Your task to perform on an android device: Add "jbl flip 4" to the cart on newegg Image 0: 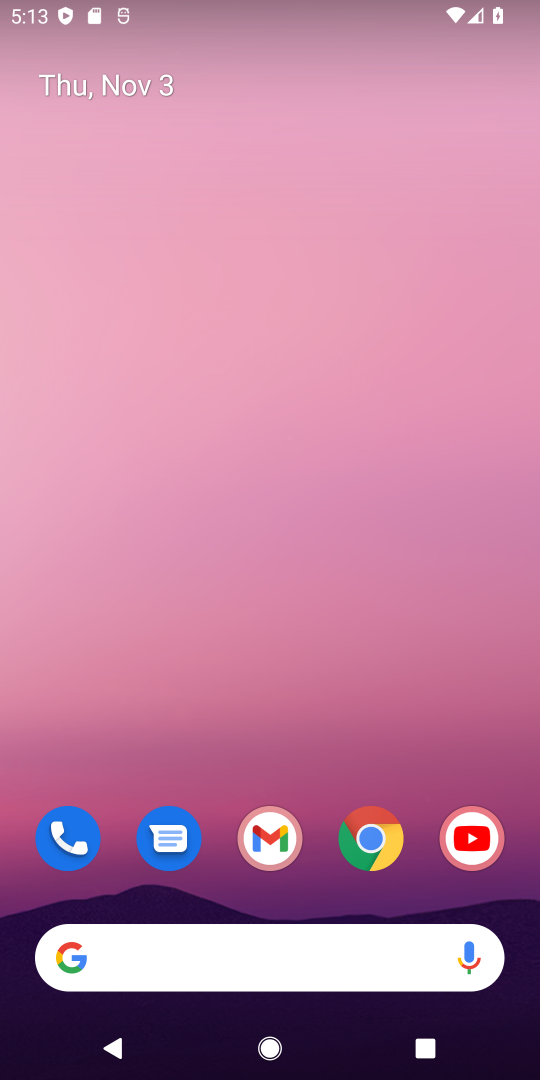
Step 0: click (359, 846)
Your task to perform on an android device: Add "jbl flip 4" to the cart on newegg Image 1: 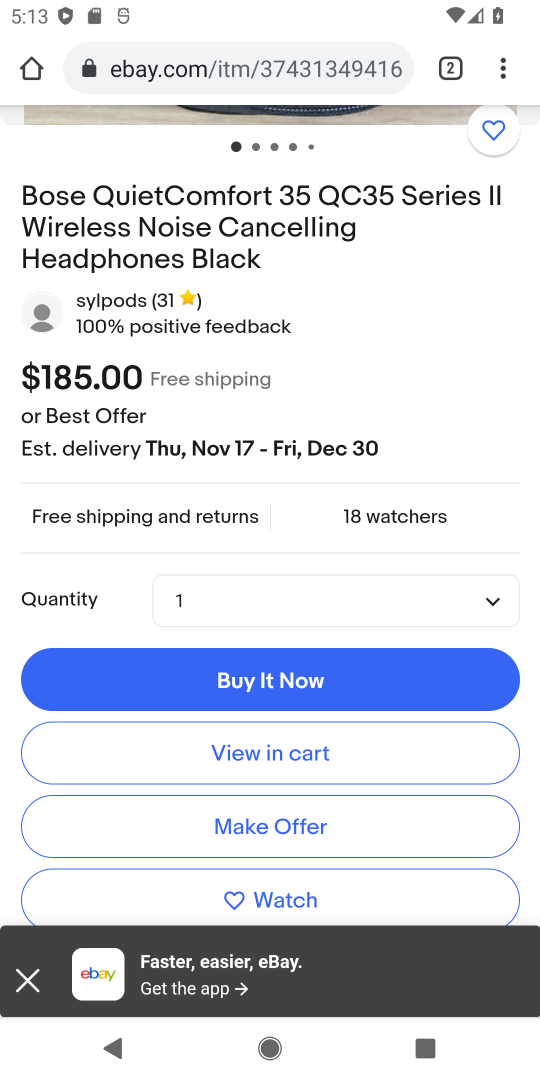
Step 1: type "newegg"
Your task to perform on an android device: Add "jbl flip 4" to the cart on newegg Image 2: 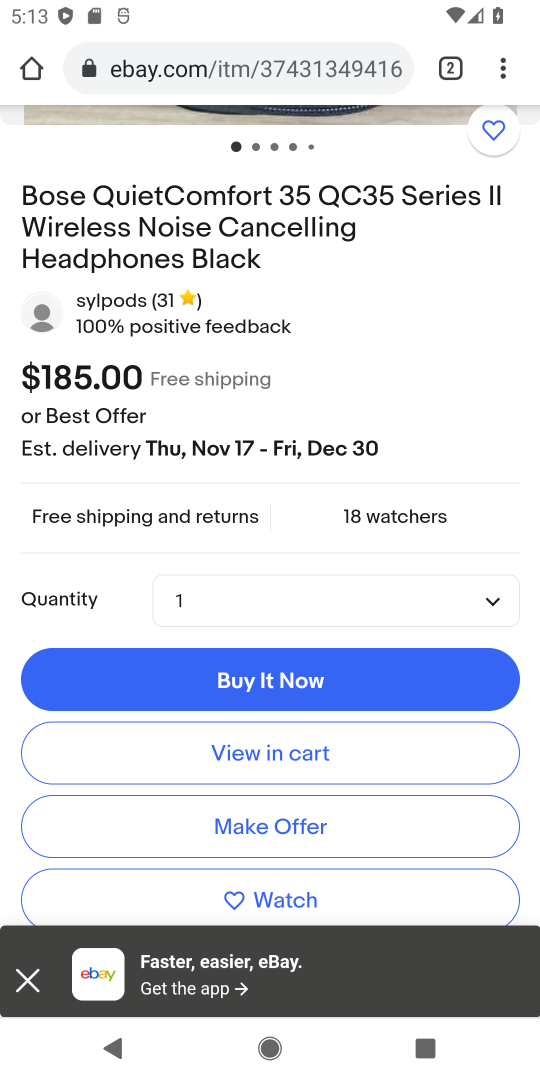
Step 2: click (451, 68)
Your task to perform on an android device: Add "jbl flip 4" to the cart on newegg Image 3: 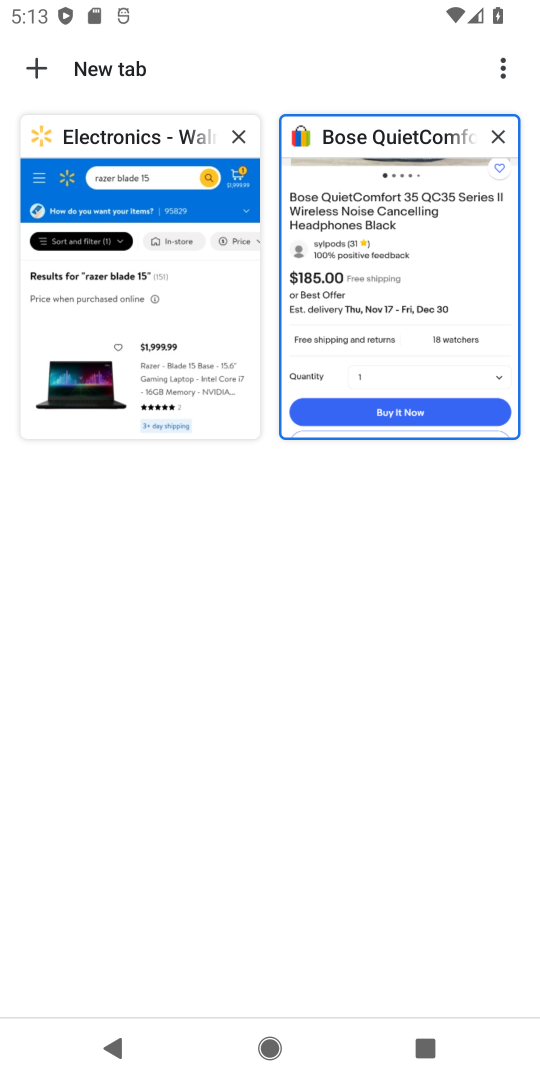
Step 3: click (36, 73)
Your task to perform on an android device: Add "jbl flip 4" to the cart on newegg Image 4: 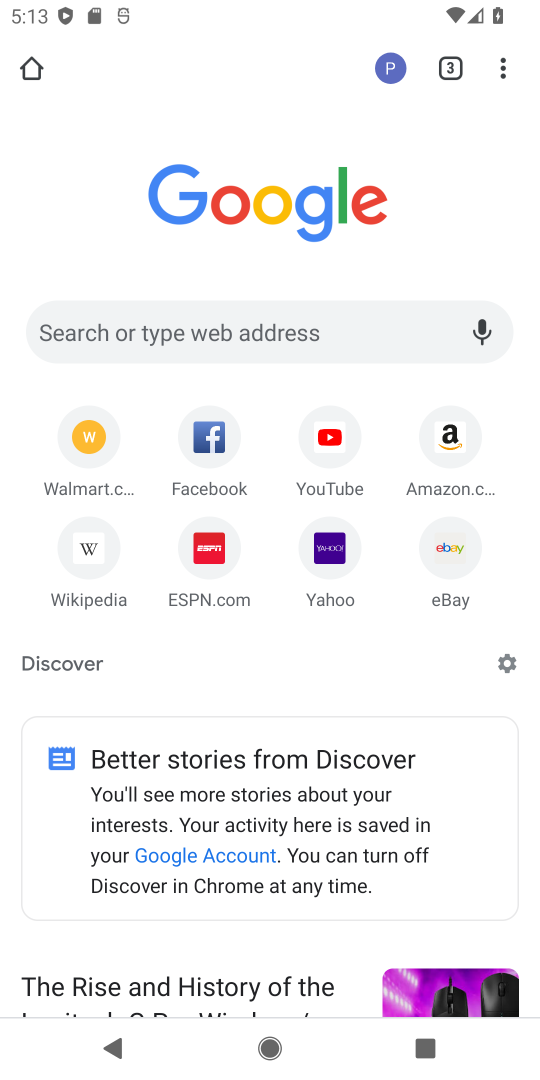
Step 4: click (336, 333)
Your task to perform on an android device: Add "jbl flip 4" to the cart on newegg Image 5: 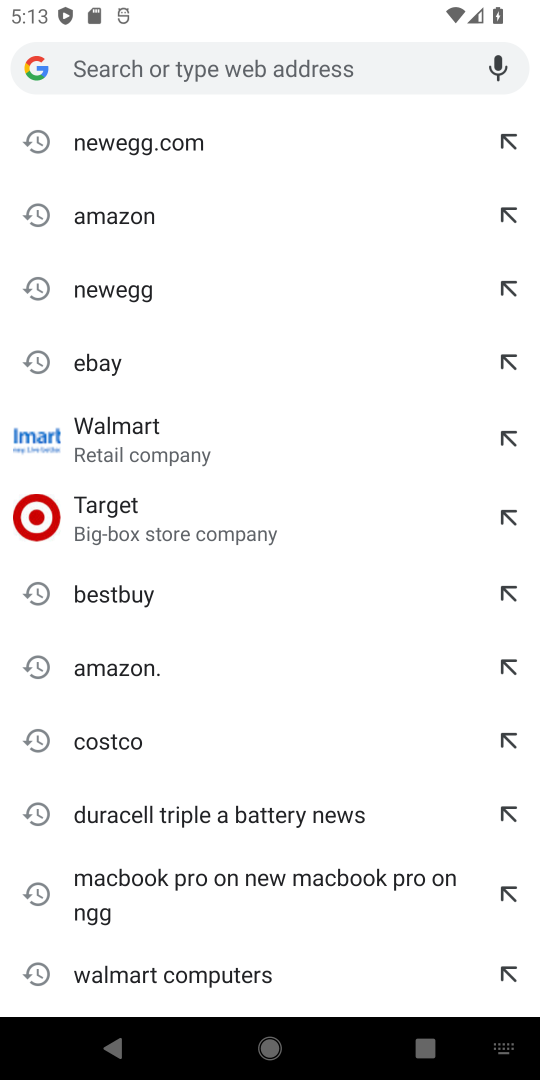
Step 5: click (143, 297)
Your task to perform on an android device: Add "jbl flip 4" to the cart on newegg Image 6: 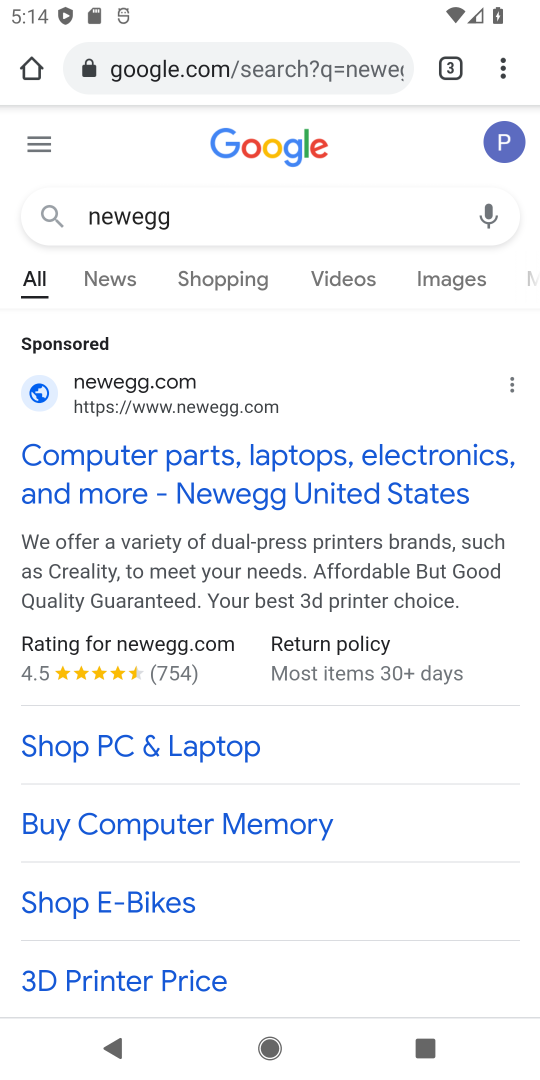
Step 6: drag from (352, 922) to (367, 343)
Your task to perform on an android device: Add "jbl flip 4" to the cart on newegg Image 7: 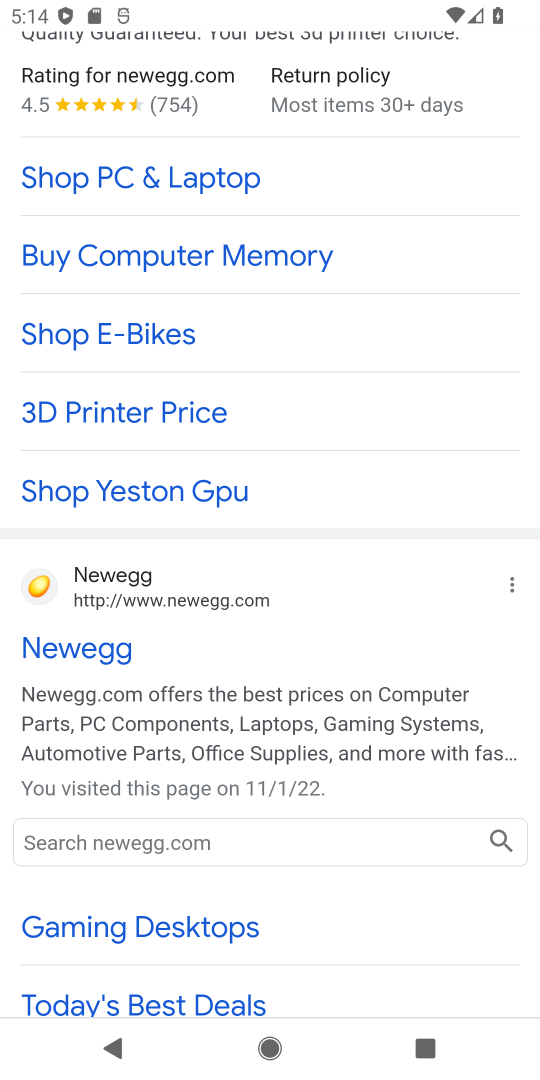
Step 7: click (170, 842)
Your task to perform on an android device: Add "jbl flip 4" to the cart on newegg Image 8: 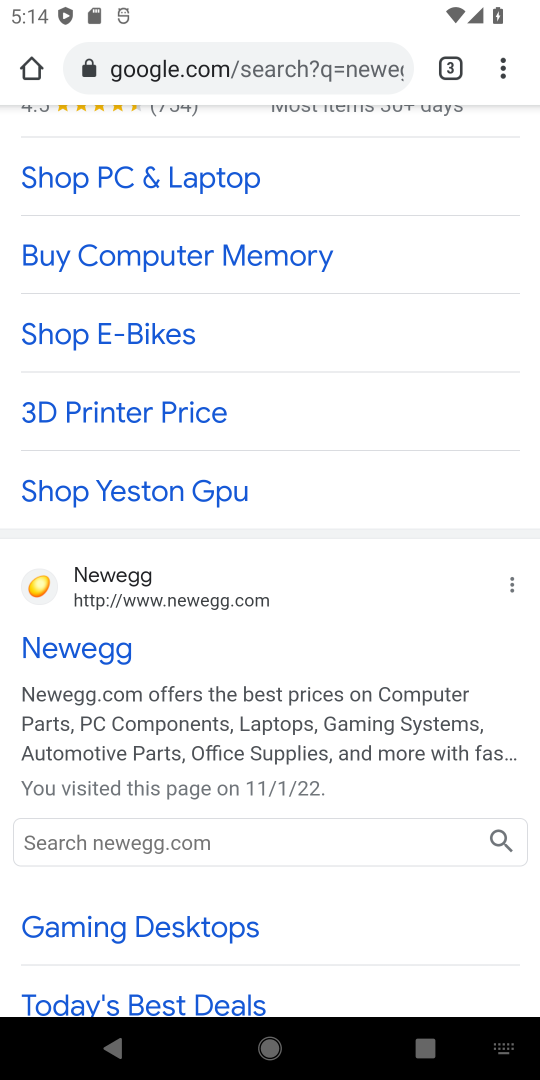
Step 8: type "jbl flip "
Your task to perform on an android device: Add "jbl flip 4" to the cart on newegg Image 9: 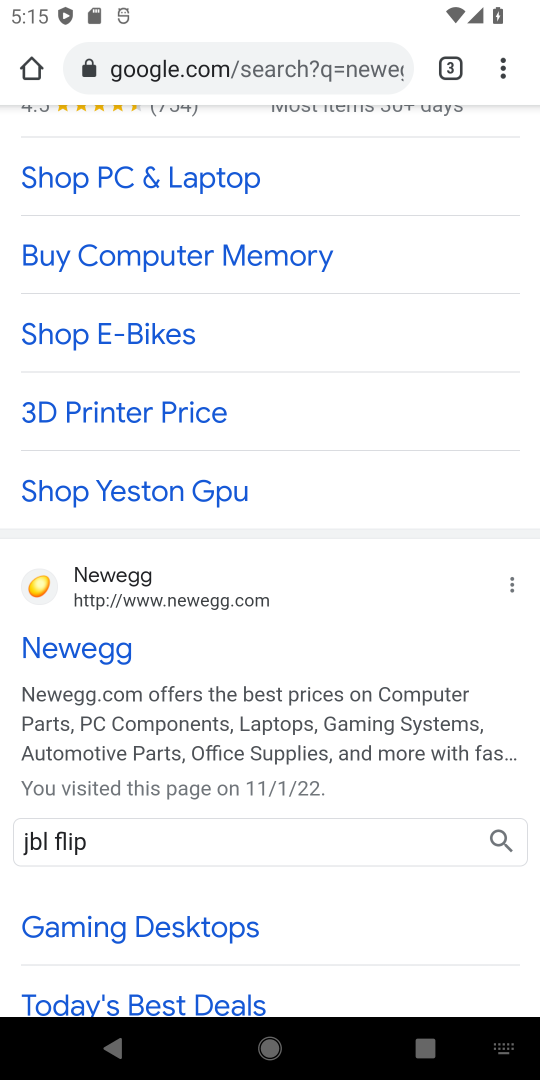
Step 9: type "4"
Your task to perform on an android device: Add "jbl flip 4" to the cart on newegg Image 10: 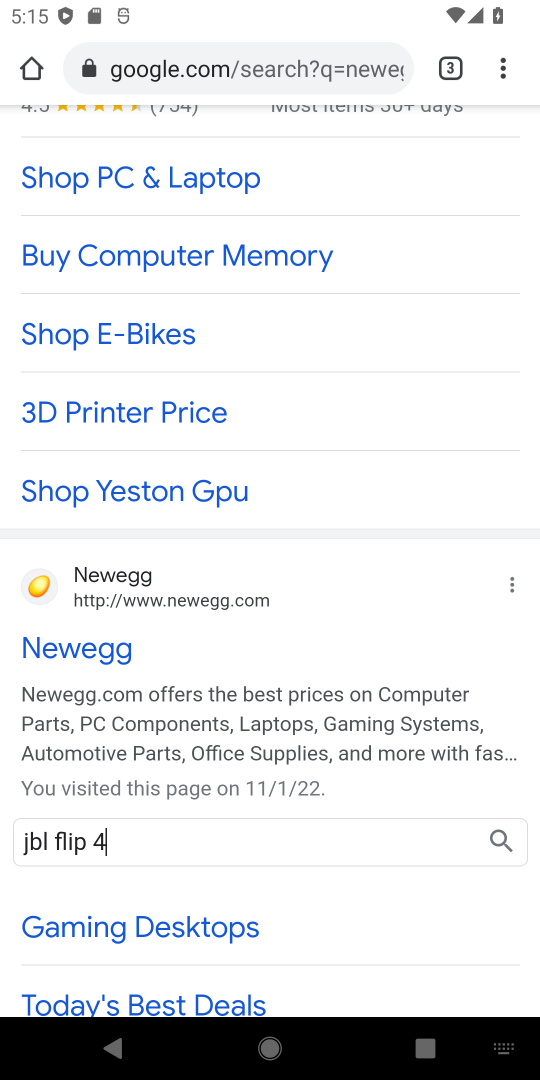
Step 10: click (492, 832)
Your task to perform on an android device: Add "jbl flip 4" to the cart on newegg Image 11: 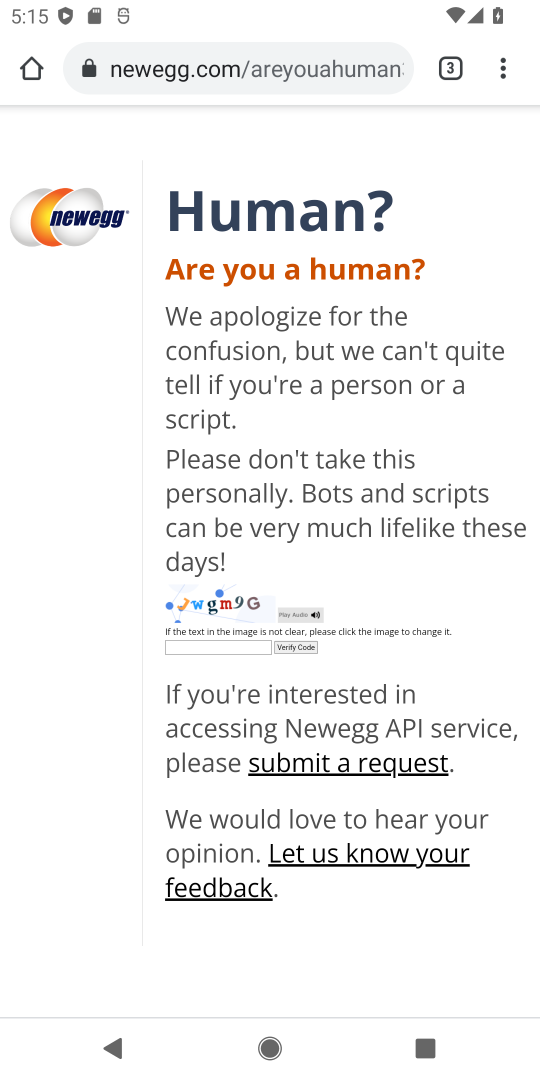
Step 11: task complete